Your task to perform on an android device: Open privacy settings Image 0: 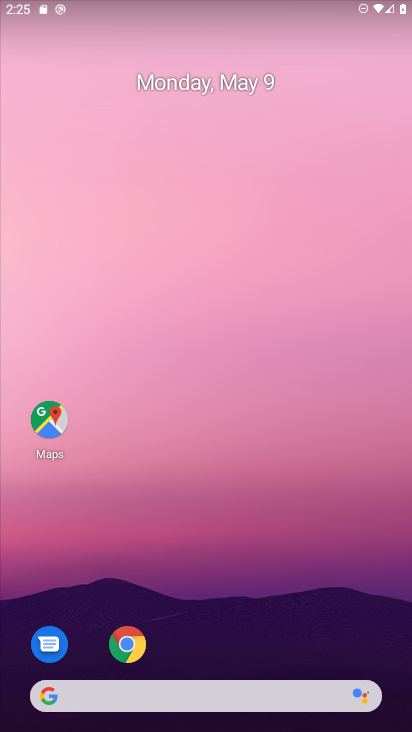
Step 0: drag from (250, 617) to (230, 210)
Your task to perform on an android device: Open privacy settings Image 1: 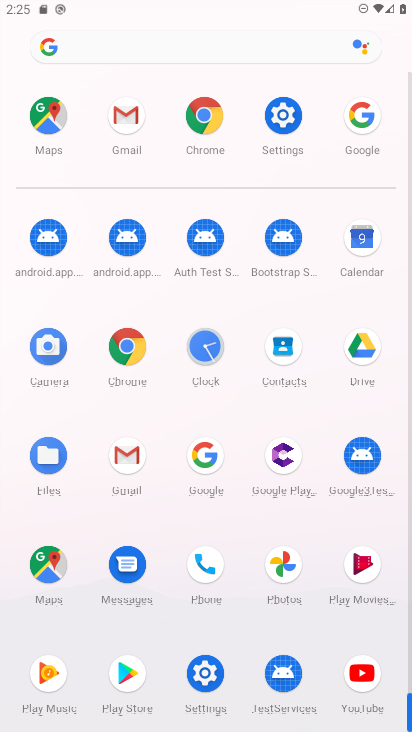
Step 1: click (208, 701)
Your task to perform on an android device: Open privacy settings Image 2: 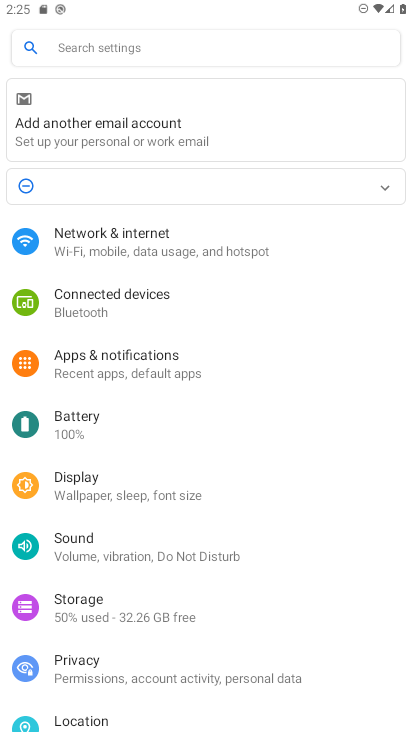
Step 2: click (160, 672)
Your task to perform on an android device: Open privacy settings Image 3: 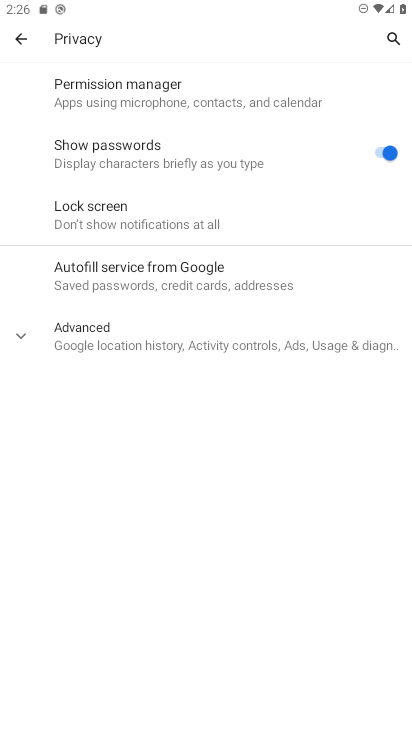
Step 3: task complete